Your task to perform on an android device: open a bookmark in the chrome app Image 0: 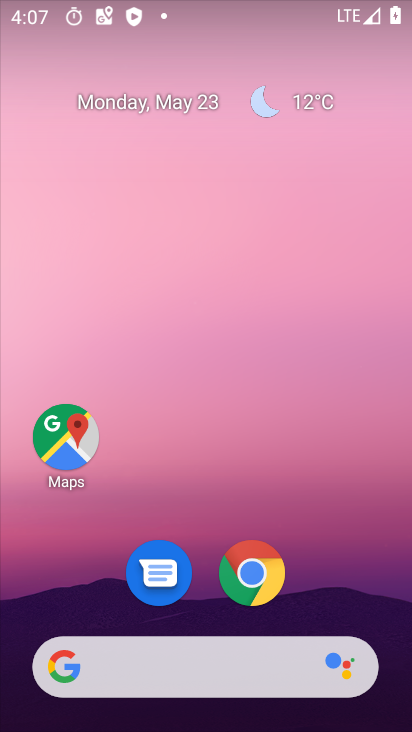
Step 0: click (249, 579)
Your task to perform on an android device: open a bookmark in the chrome app Image 1: 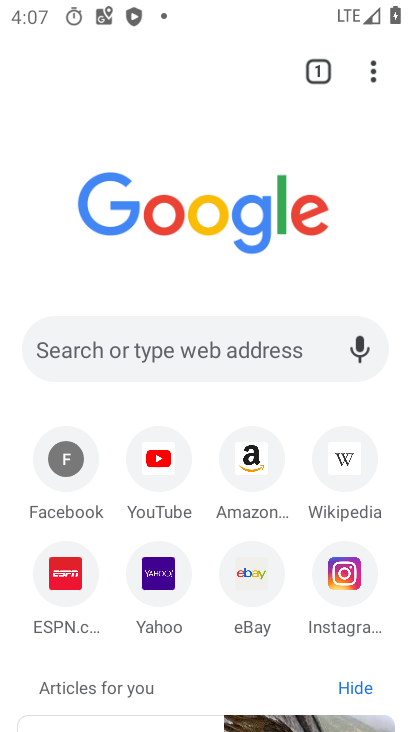
Step 1: click (372, 65)
Your task to perform on an android device: open a bookmark in the chrome app Image 2: 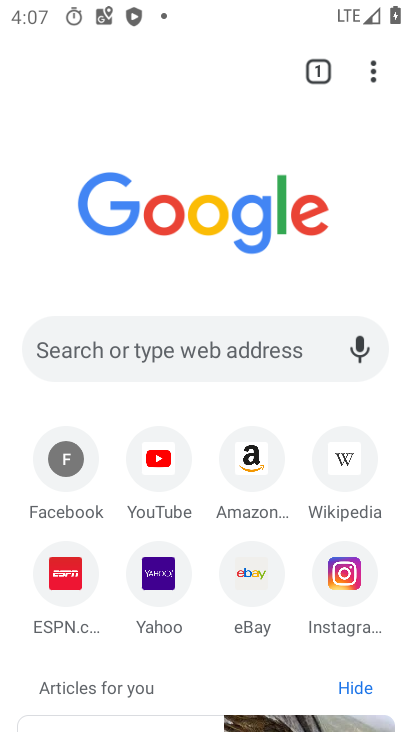
Step 2: click (372, 65)
Your task to perform on an android device: open a bookmark in the chrome app Image 3: 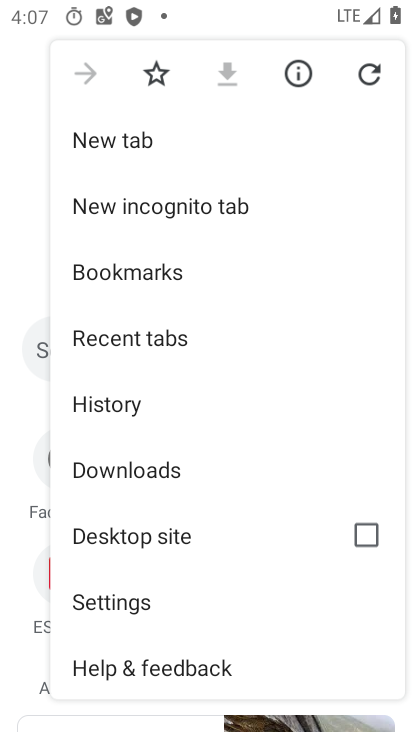
Step 3: click (145, 264)
Your task to perform on an android device: open a bookmark in the chrome app Image 4: 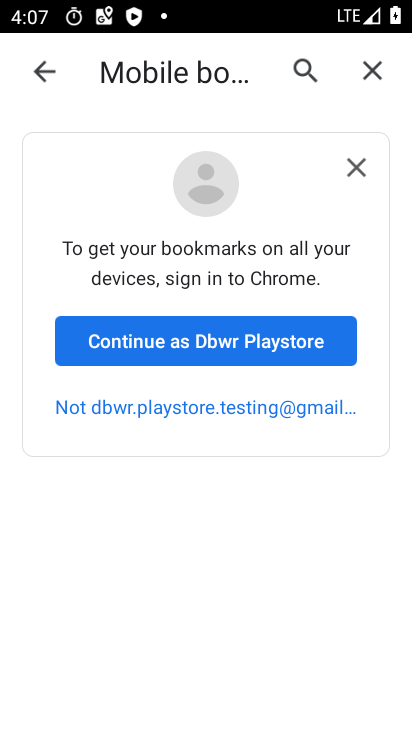
Step 4: task complete